Your task to perform on an android device: Check the news Image 0: 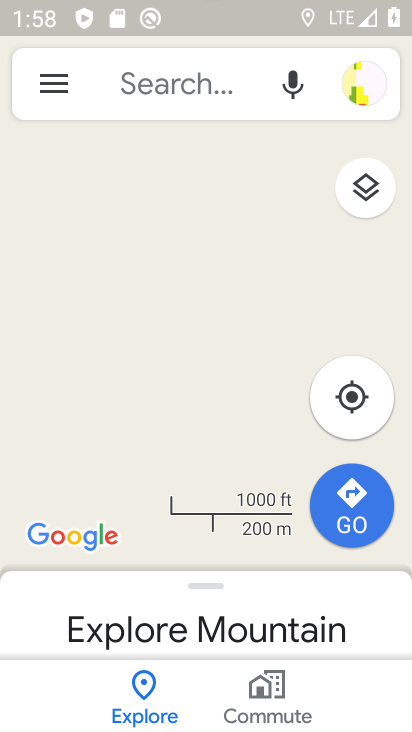
Step 0: press home button
Your task to perform on an android device: Check the news Image 1: 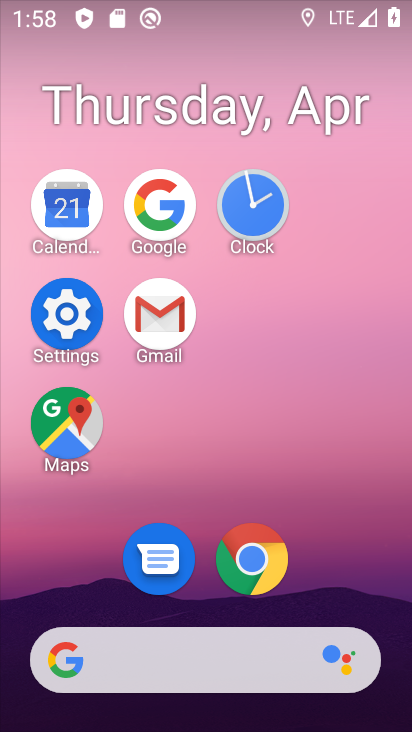
Step 1: click (160, 195)
Your task to perform on an android device: Check the news Image 2: 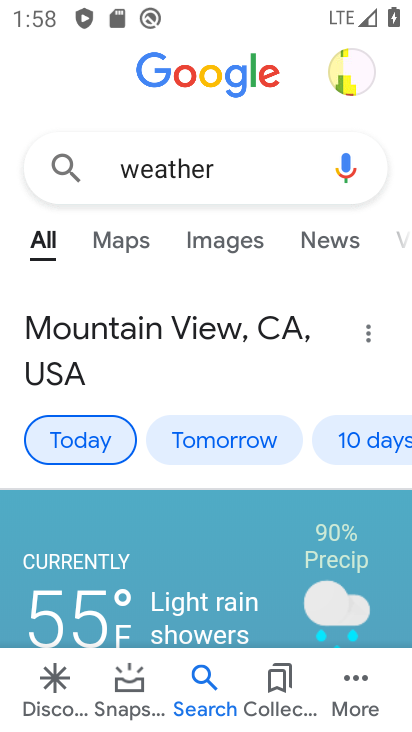
Step 2: click (262, 160)
Your task to perform on an android device: Check the news Image 3: 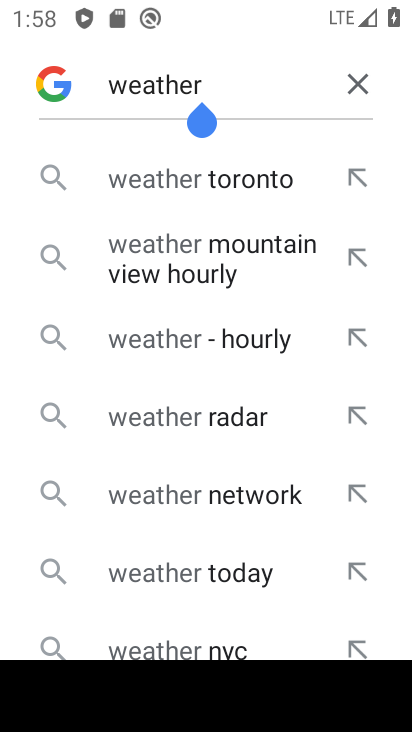
Step 3: click (353, 77)
Your task to perform on an android device: Check the news Image 4: 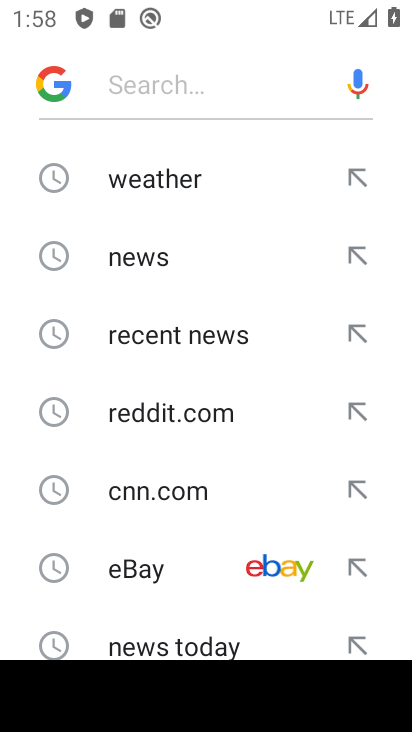
Step 4: click (186, 260)
Your task to perform on an android device: Check the news Image 5: 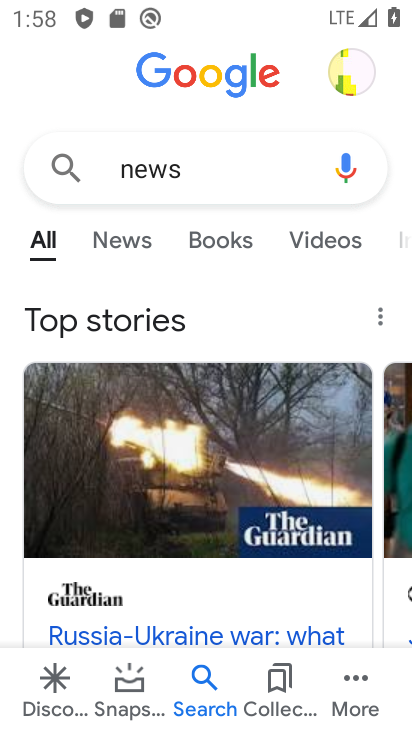
Step 5: task complete